Your task to perform on an android device: Search for pizza restaurants on Maps Image 0: 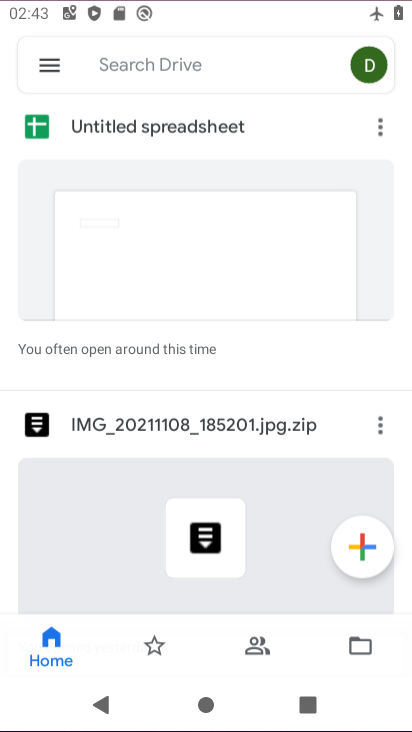
Step 0: drag from (186, 609) to (231, 198)
Your task to perform on an android device: Search for pizza restaurants on Maps Image 1: 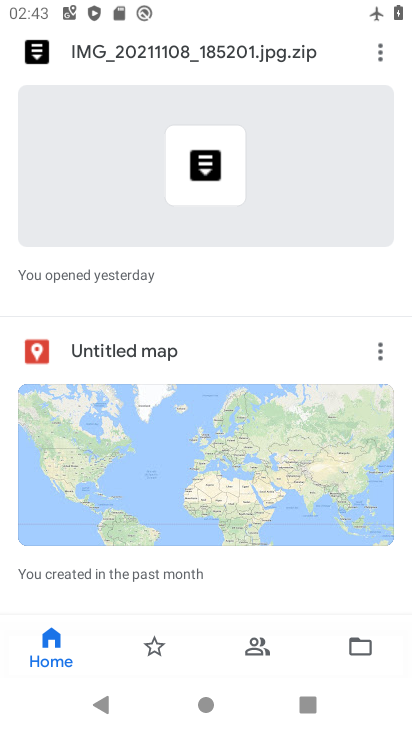
Step 1: press home button
Your task to perform on an android device: Search for pizza restaurants on Maps Image 2: 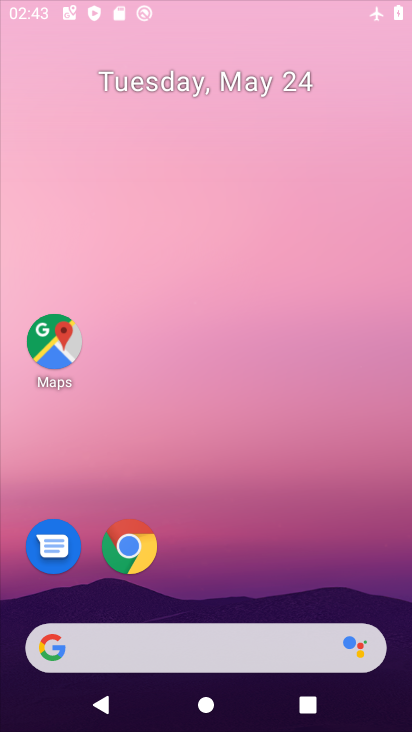
Step 2: drag from (151, 581) to (180, 476)
Your task to perform on an android device: Search for pizza restaurants on Maps Image 3: 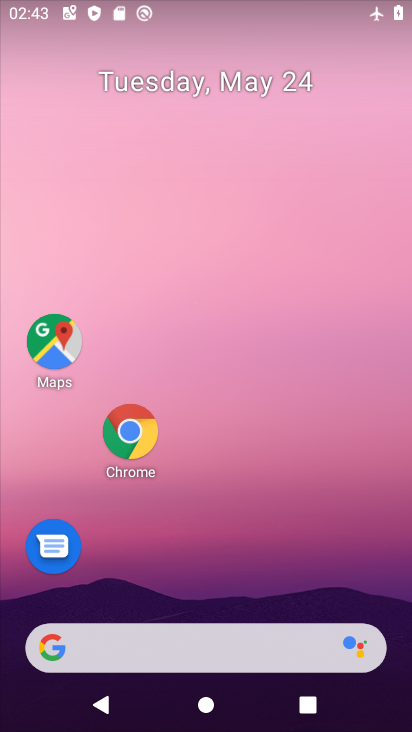
Step 3: drag from (301, 555) to (350, 373)
Your task to perform on an android device: Search for pizza restaurants on Maps Image 4: 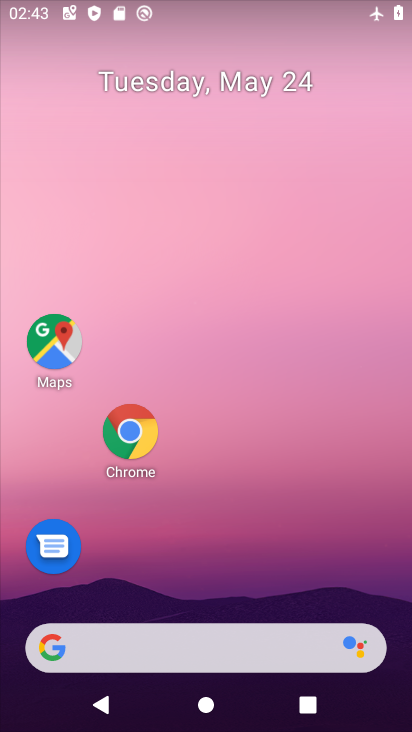
Step 4: drag from (205, 584) to (257, 274)
Your task to perform on an android device: Search for pizza restaurants on Maps Image 5: 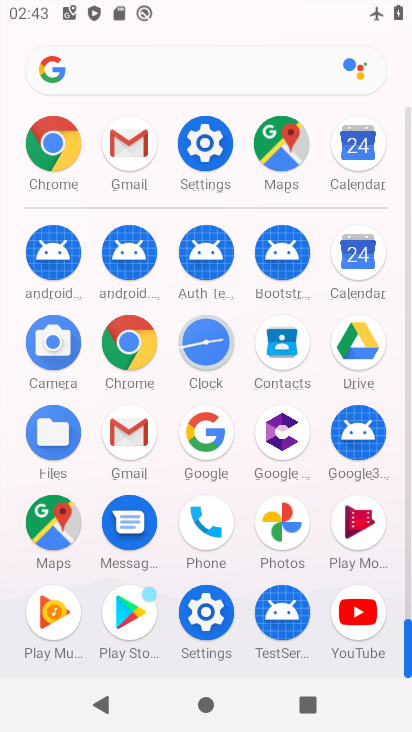
Step 5: click (50, 530)
Your task to perform on an android device: Search for pizza restaurants on Maps Image 6: 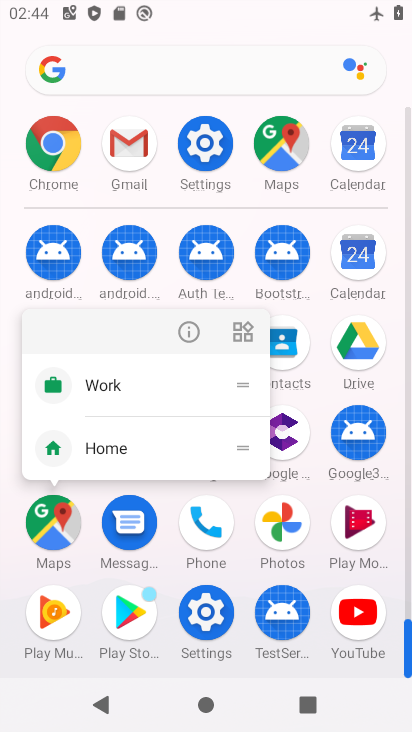
Step 6: click (185, 334)
Your task to perform on an android device: Search for pizza restaurants on Maps Image 7: 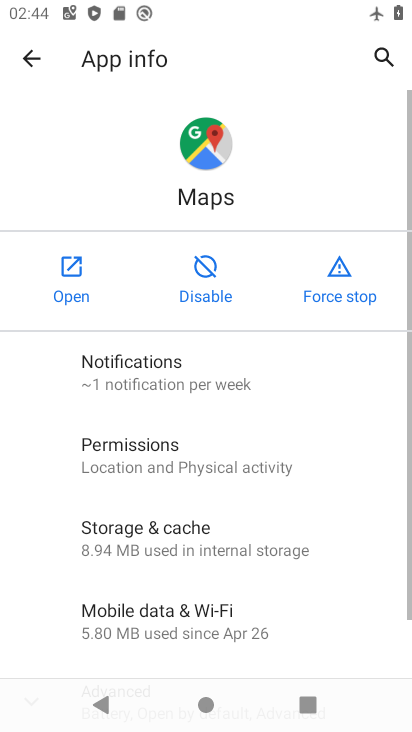
Step 7: click (87, 266)
Your task to perform on an android device: Search for pizza restaurants on Maps Image 8: 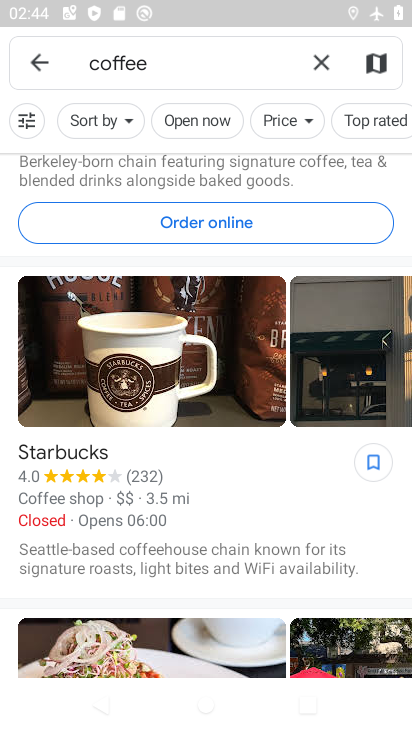
Step 8: click (318, 62)
Your task to perform on an android device: Search for pizza restaurants on Maps Image 9: 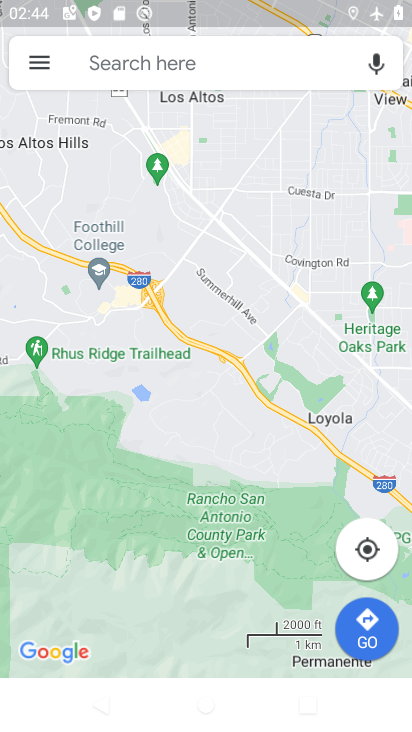
Step 9: click (261, 69)
Your task to perform on an android device: Search for pizza restaurants on Maps Image 10: 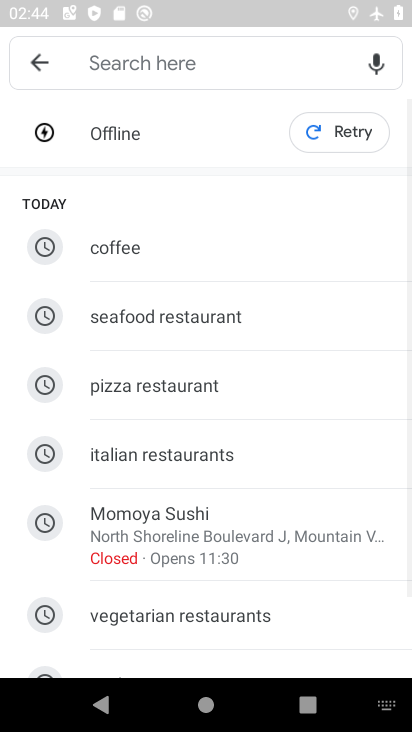
Step 10: click (136, 384)
Your task to perform on an android device: Search for pizza restaurants on Maps Image 11: 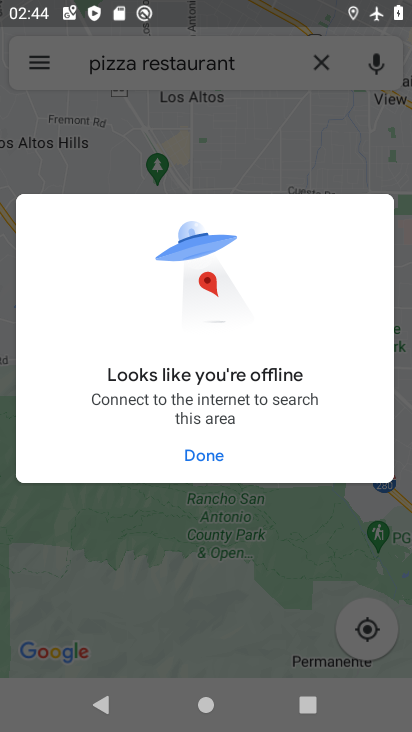
Step 11: click (226, 453)
Your task to perform on an android device: Search for pizza restaurants on Maps Image 12: 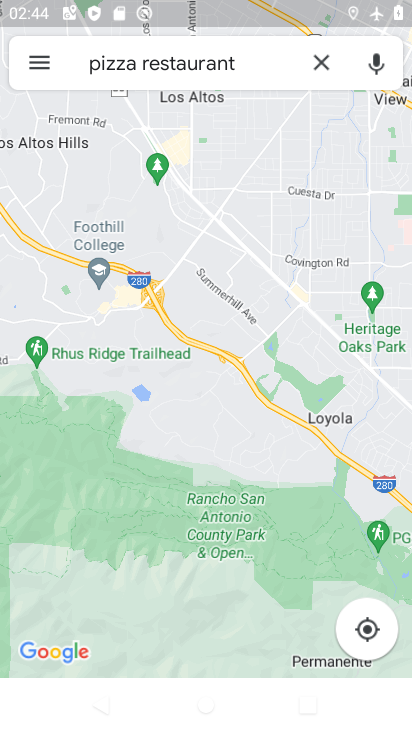
Step 12: task complete